Your task to perform on an android device: Go to Reddit.com Image 0: 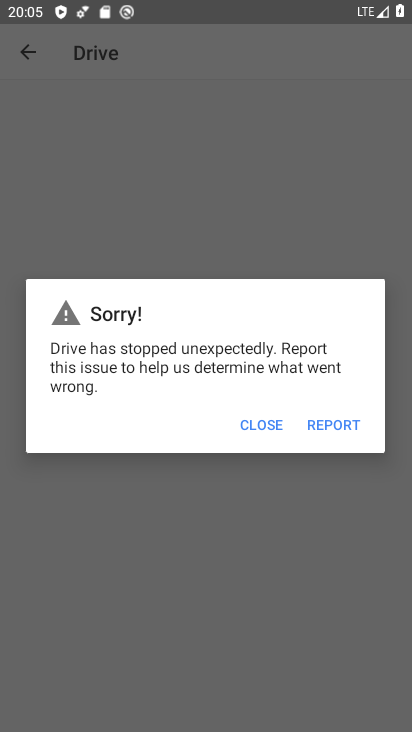
Step 0: press home button
Your task to perform on an android device: Go to Reddit.com Image 1: 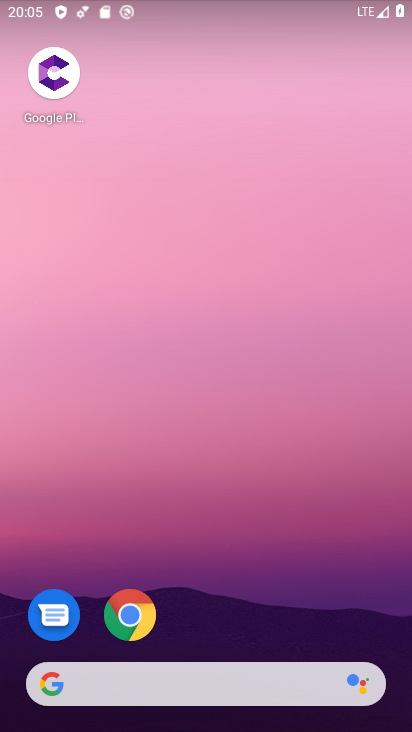
Step 1: click (129, 613)
Your task to perform on an android device: Go to Reddit.com Image 2: 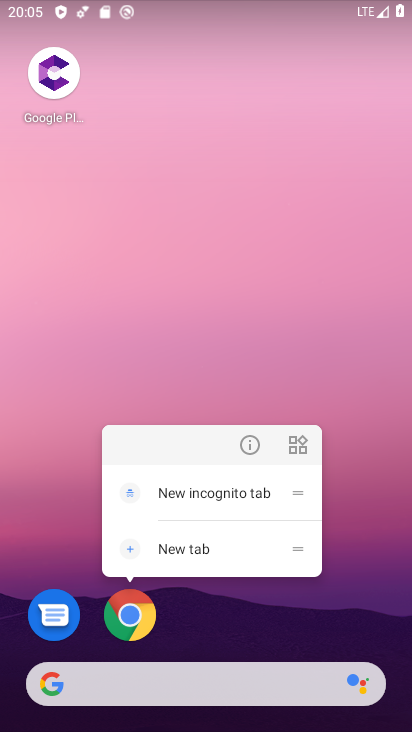
Step 2: click (243, 448)
Your task to perform on an android device: Go to Reddit.com Image 3: 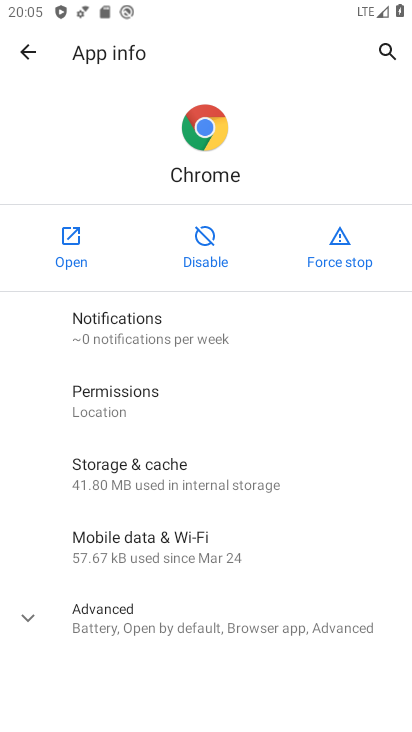
Step 3: click (78, 241)
Your task to perform on an android device: Go to Reddit.com Image 4: 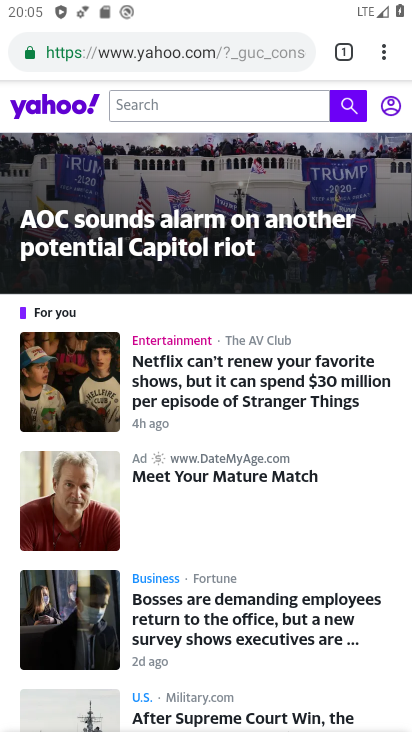
Step 4: click (199, 45)
Your task to perform on an android device: Go to Reddit.com Image 5: 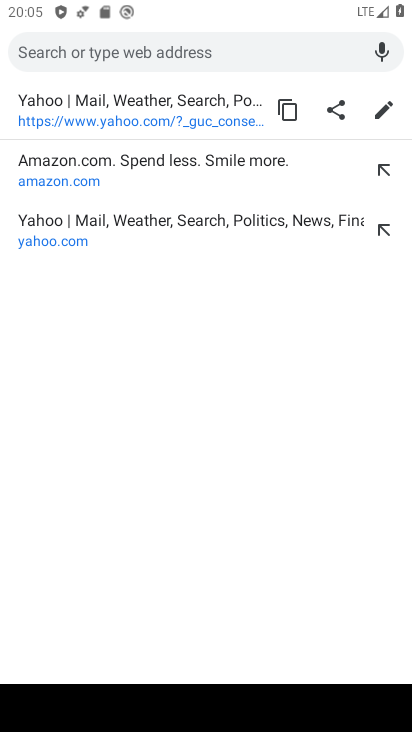
Step 5: type "reddit.com"
Your task to perform on an android device: Go to Reddit.com Image 6: 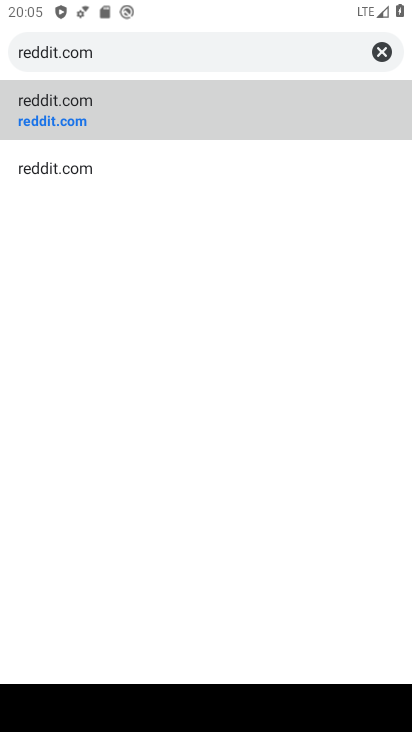
Step 6: click (29, 107)
Your task to perform on an android device: Go to Reddit.com Image 7: 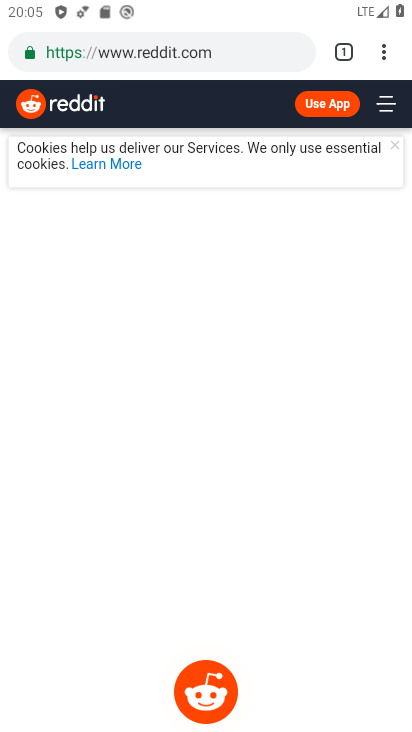
Step 7: task complete